Your task to perform on an android device: Go to CNN.com Image 0: 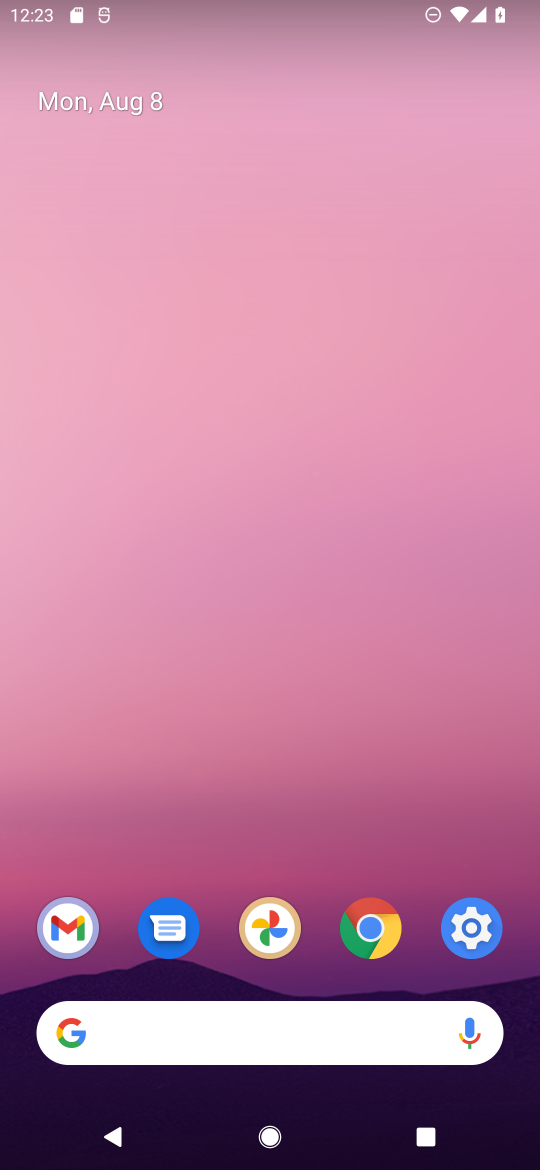
Step 0: click (368, 946)
Your task to perform on an android device: Go to CNN.com Image 1: 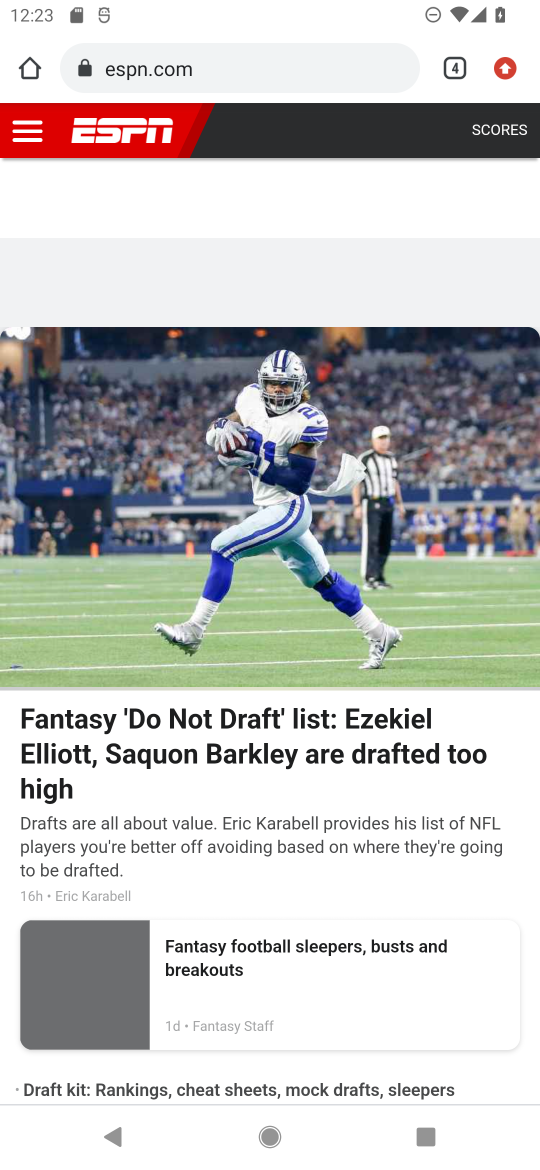
Step 1: click (289, 84)
Your task to perform on an android device: Go to CNN.com Image 2: 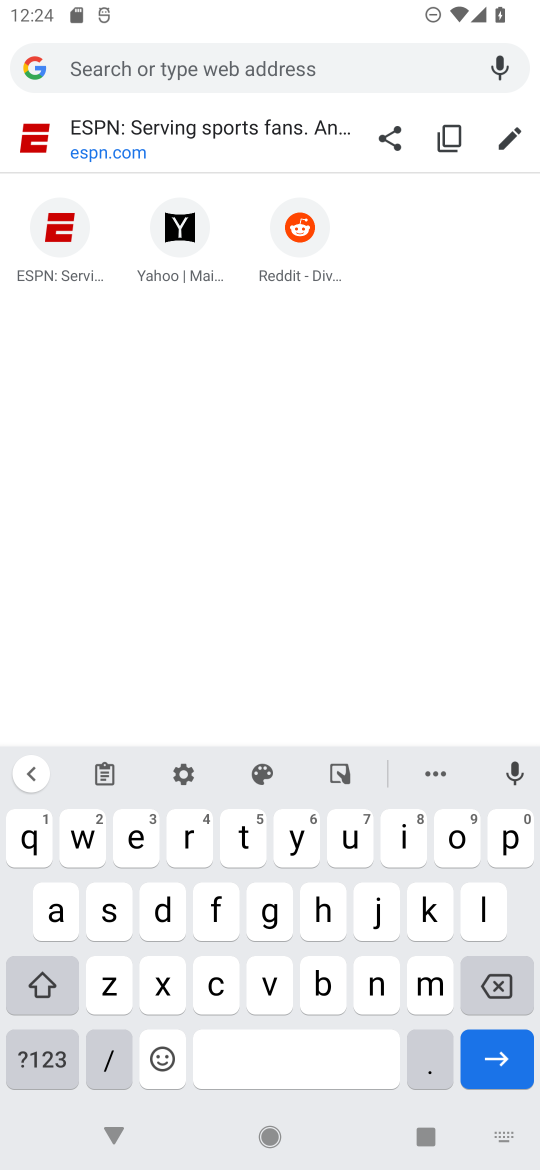
Step 2: click (207, 983)
Your task to perform on an android device: Go to CNN.com Image 3: 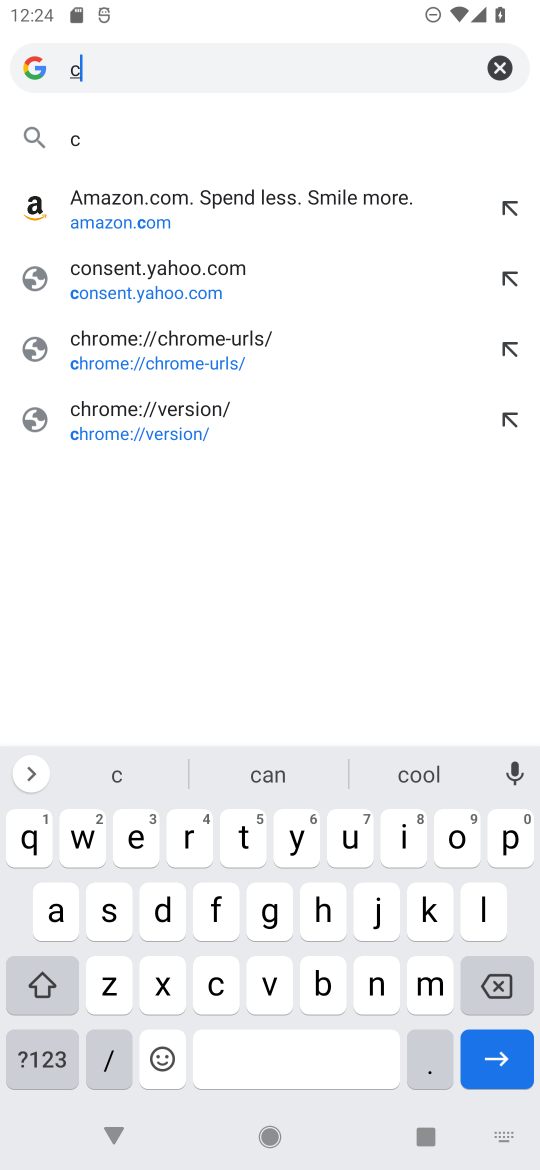
Step 3: click (369, 979)
Your task to perform on an android device: Go to CNN.com Image 4: 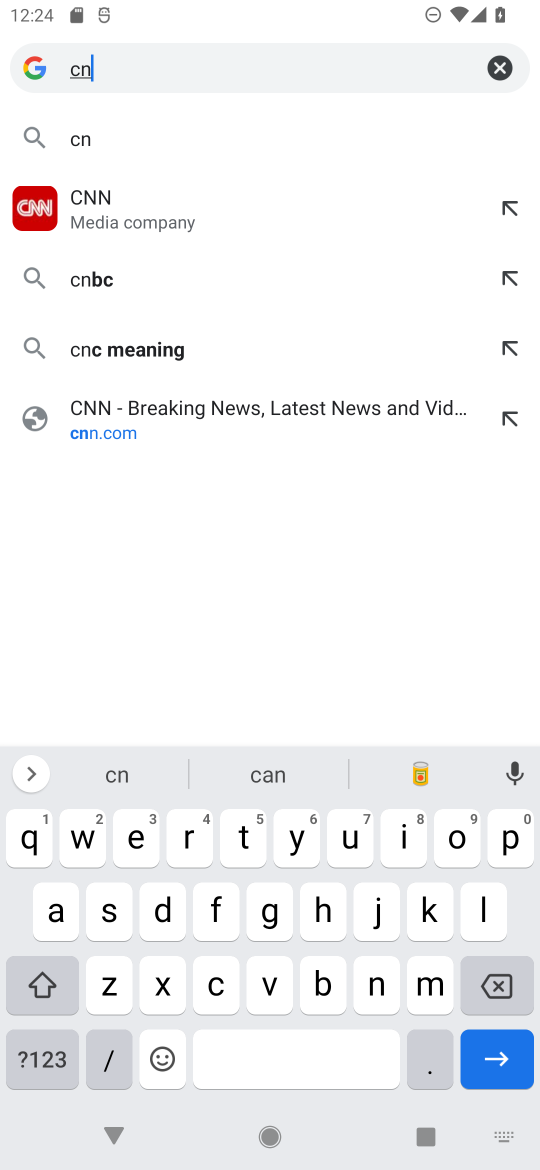
Step 4: click (131, 217)
Your task to perform on an android device: Go to CNN.com Image 5: 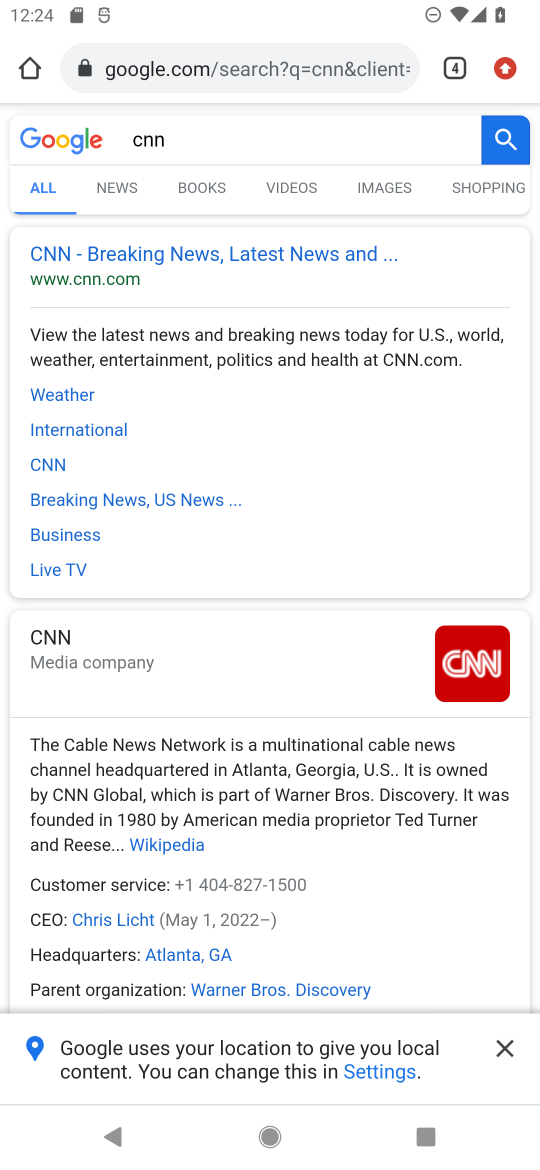
Step 5: click (134, 245)
Your task to perform on an android device: Go to CNN.com Image 6: 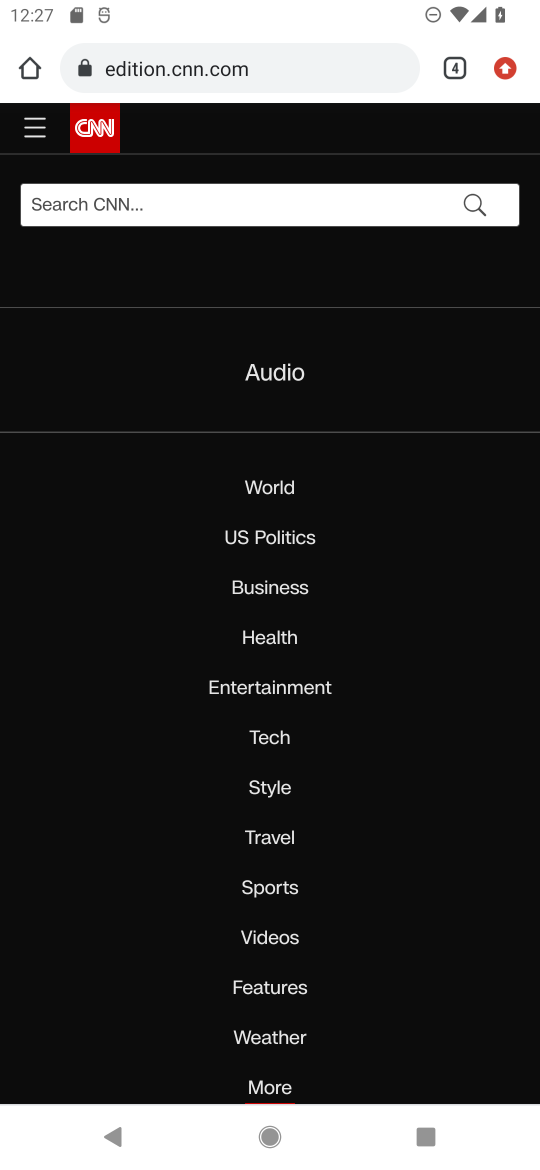
Step 6: task complete